Your task to perform on an android device: Open calendar and show me the second week of next month Image 0: 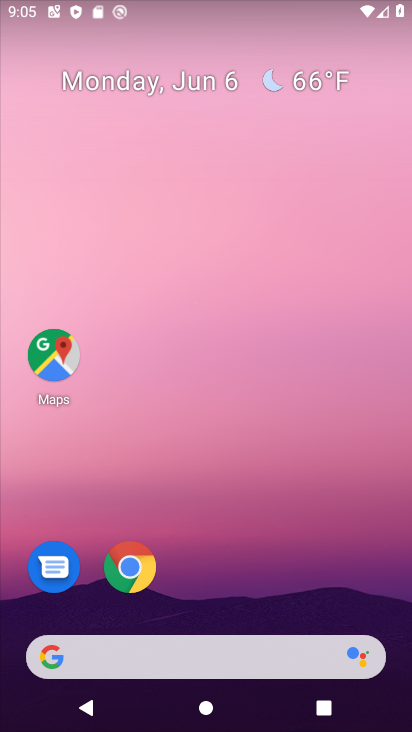
Step 0: click (181, 83)
Your task to perform on an android device: Open calendar and show me the second week of next month Image 1: 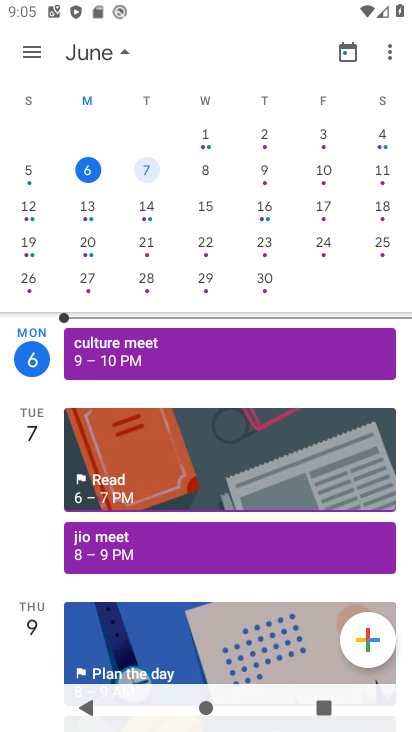
Step 1: click (391, 59)
Your task to perform on an android device: Open calendar and show me the second week of next month Image 2: 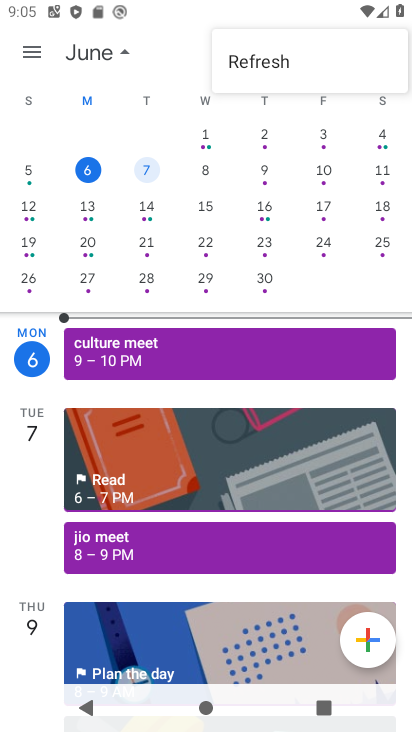
Step 2: drag from (351, 303) to (7, 235)
Your task to perform on an android device: Open calendar and show me the second week of next month Image 3: 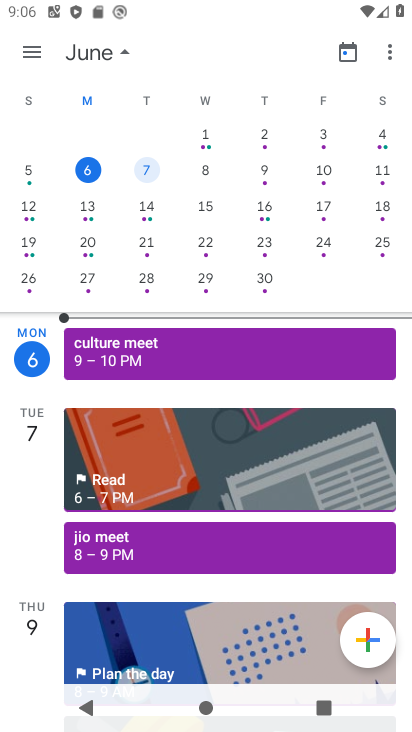
Step 3: drag from (339, 284) to (13, 266)
Your task to perform on an android device: Open calendar and show me the second week of next month Image 4: 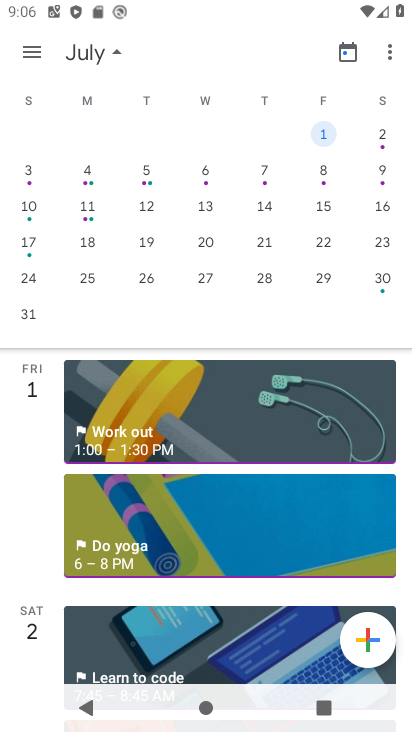
Step 4: click (385, 171)
Your task to perform on an android device: Open calendar and show me the second week of next month Image 5: 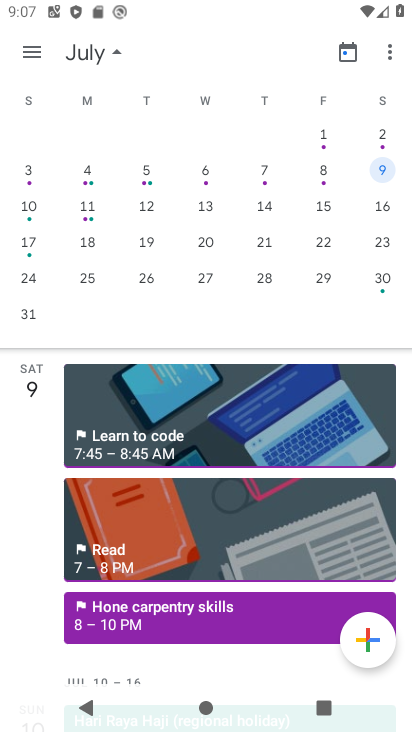
Step 5: task complete